Your task to perform on an android device: Is it going to rain this weekend? Image 0: 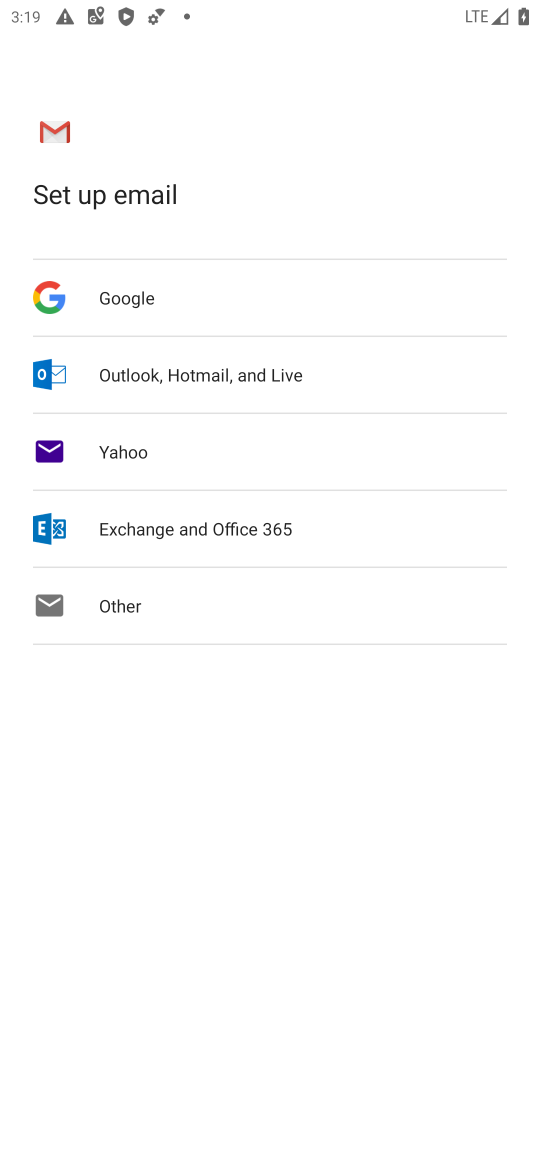
Step 0: press home button
Your task to perform on an android device: Is it going to rain this weekend? Image 1: 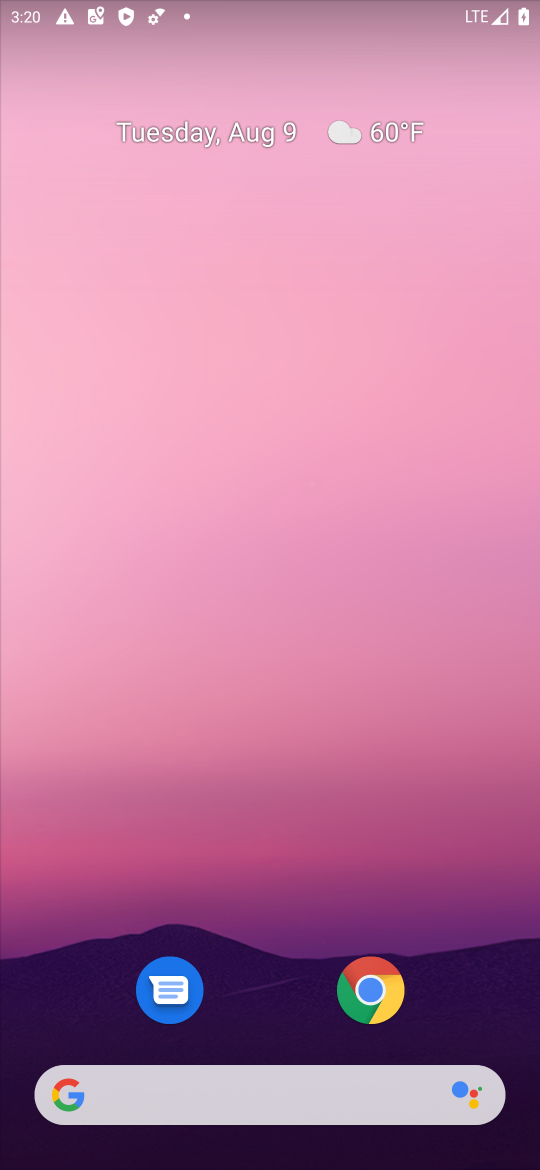
Step 1: drag from (141, 1111) to (305, 97)
Your task to perform on an android device: Is it going to rain this weekend? Image 2: 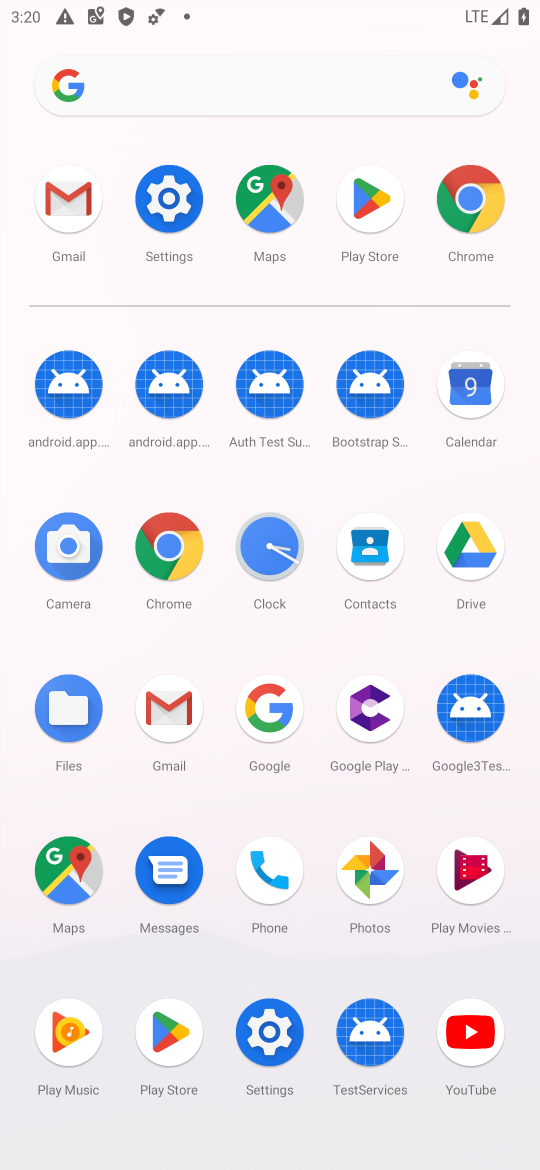
Step 2: click (283, 720)
Your task to perform on an android device: Is it going to rain this weekend? Image 3: 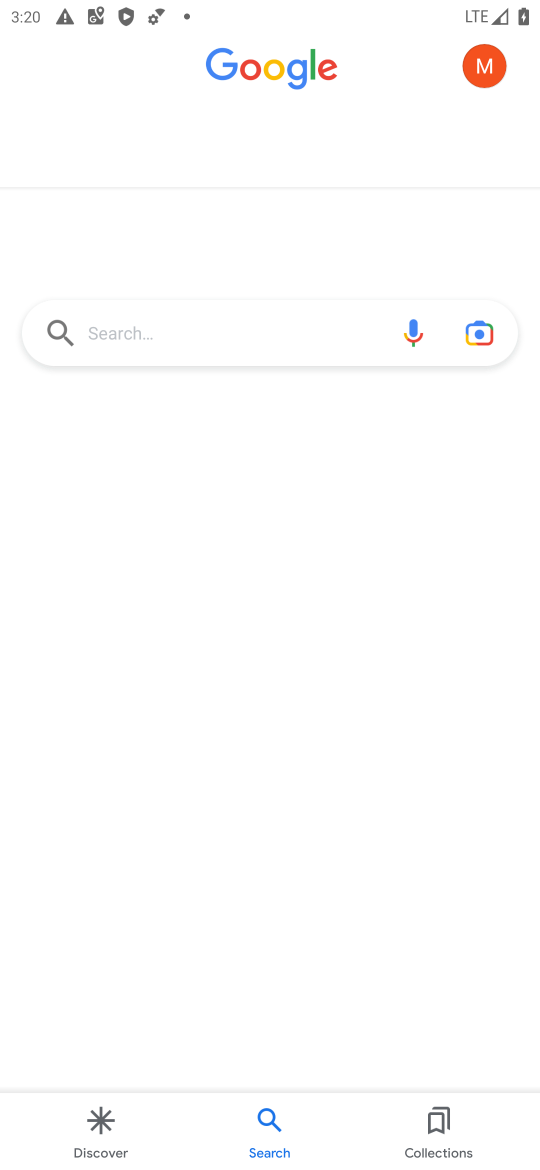
Step 3: click (286, 345)
Your task to perform on an android device: Is it going to rain this weekend? Image 4: 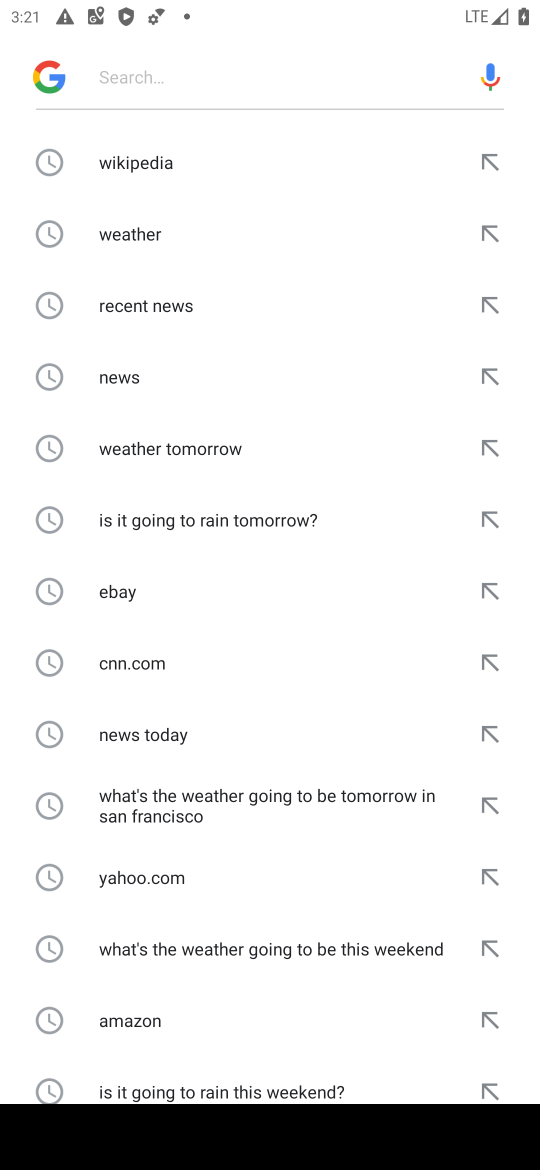
Step 4: click (347, 953)
Your task to perform on an android device: Is it going to rain this weekend? Image 5: 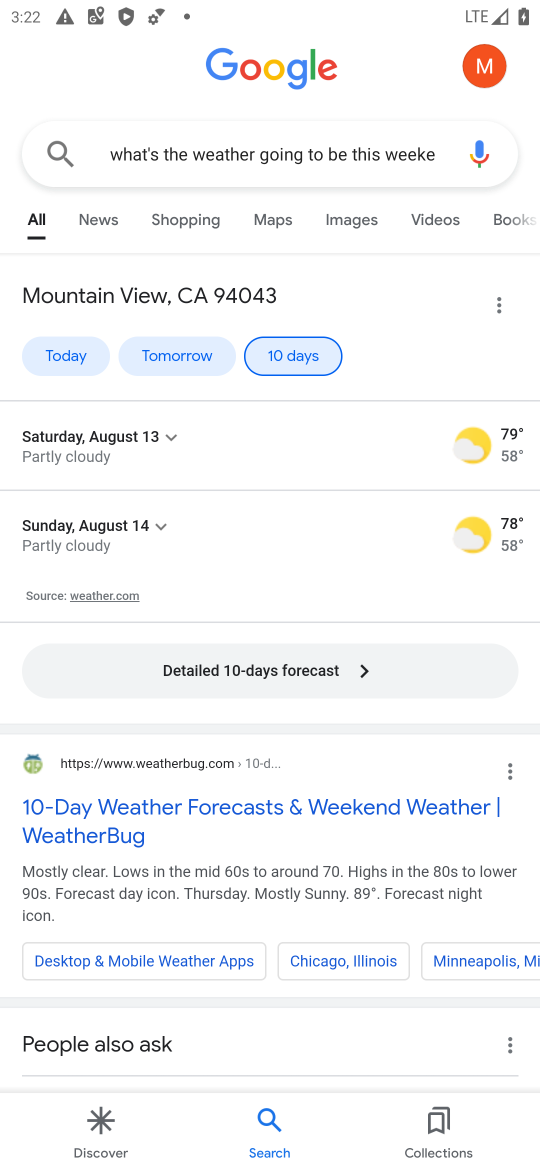
Step 5: task complete